Your task to perform on an android device: What's on my calendar today? Image 0: 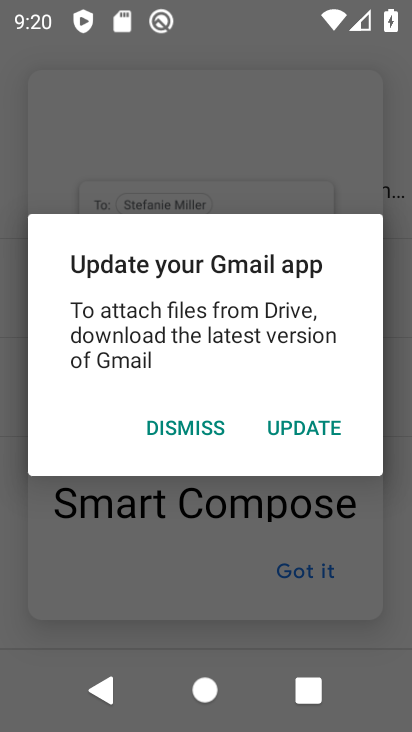
Step 0: press home button
Your task to perform on an android device: What's on my calendar today? Image 1: 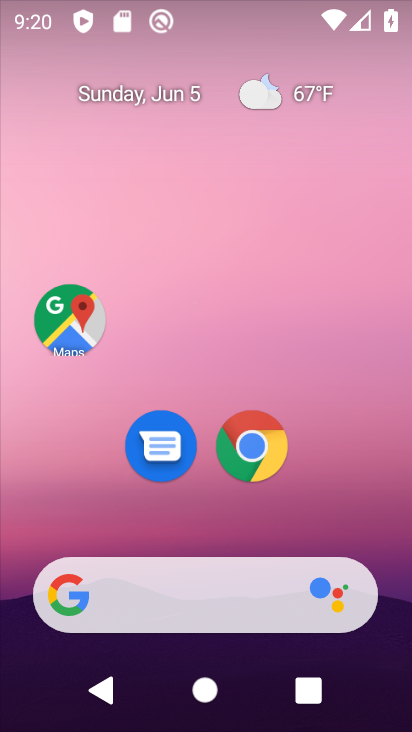
Step 1: drag from (196, 529) to (233, 156)
Your task to perform on an android device: What's on my calendar today? Image 2: 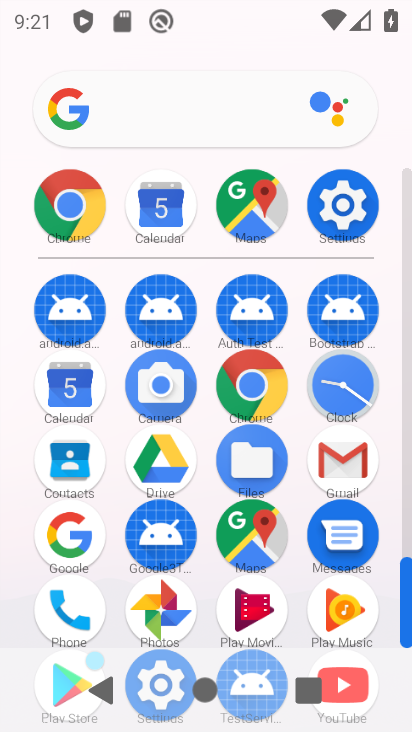
Step 2: click (90, 381)
Your task to perform on an android device: What's on my calendar today? Image 3: 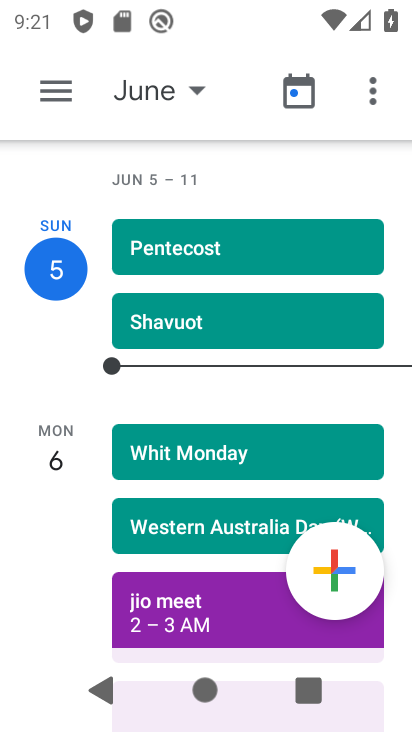
Step 3: click (195, 96)
Your task to perform on an android device: What's on my calendar today? Image 4: 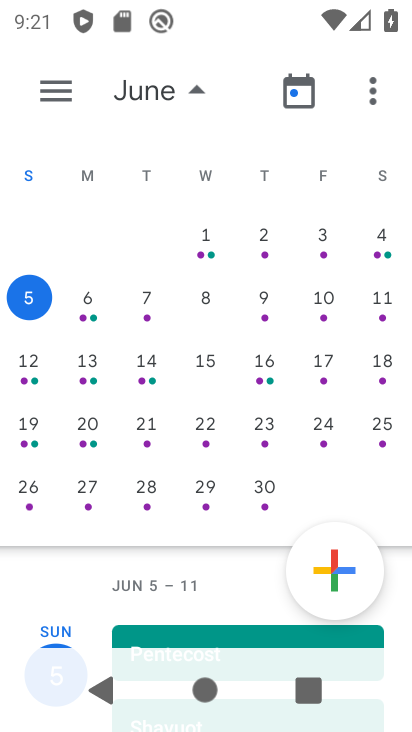
Step 4: click (35, 289)
Your task to perform on an android device: What's on my calendar today? Image 5: 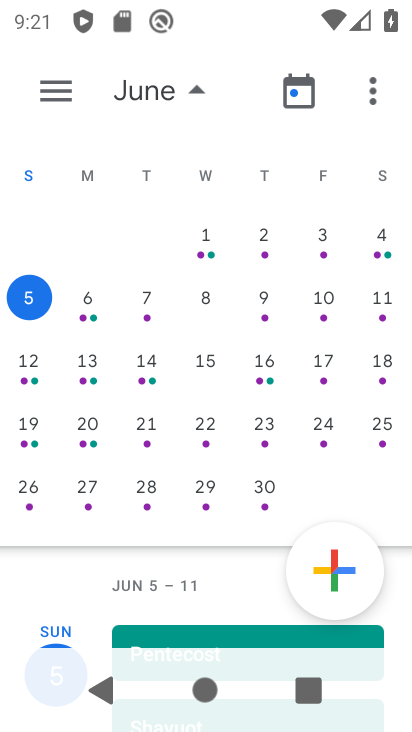
Step 5: task complete